Your task to perform on an android device: turn off notifications settings in the gmail app Image 0: 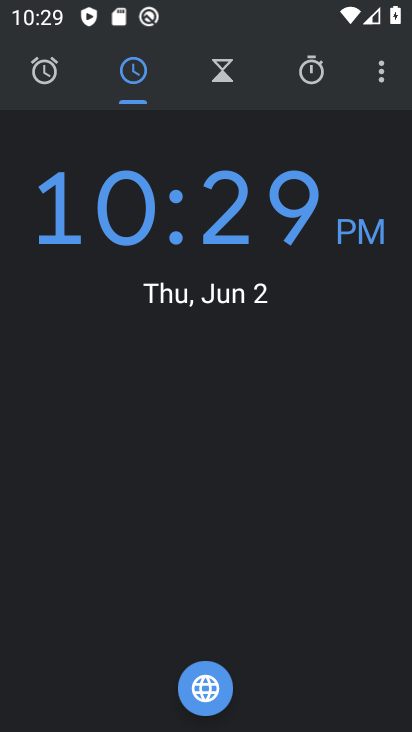
Step 0: task complete